Your task to perform on an android device: Open internet settings Image 0: 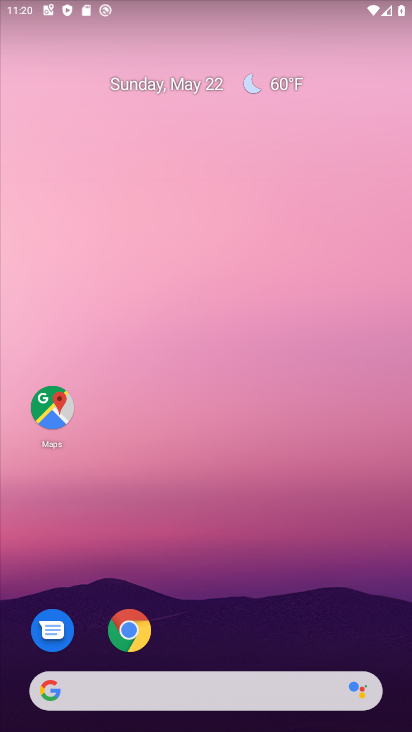
Step 0: drag from (260, 626) to (178, 217)
Your task to perform on an android device: Open internet settings Image 1: 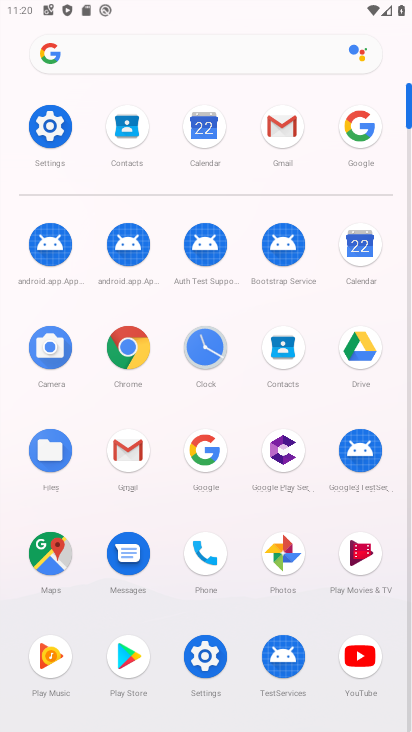
Step 1: click (205, 658)
Your task to perform on an android device: Open internet settings Image 2: 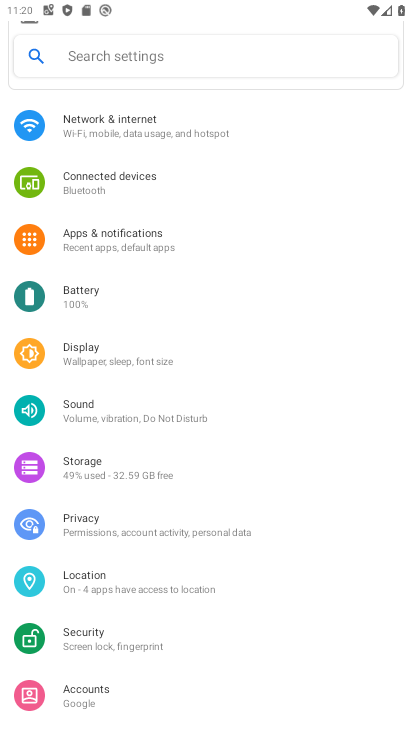
Step 2: click (107, 125)
Your task to perform on an android device: Open internet settings Image 3: 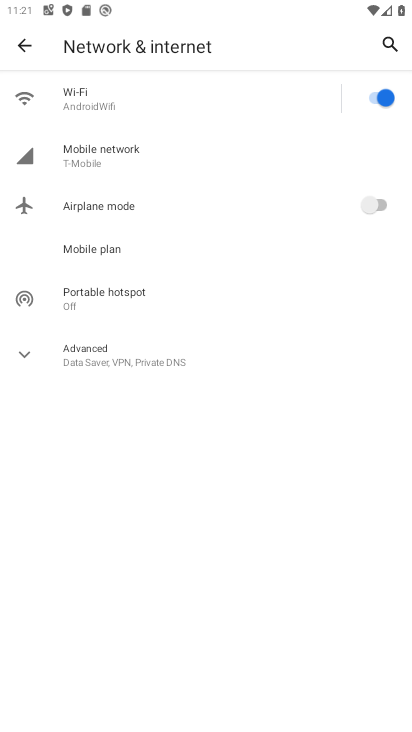
Step 3: click (90, 110)
Your task to perform on an android device: Open internet settings Image 4: 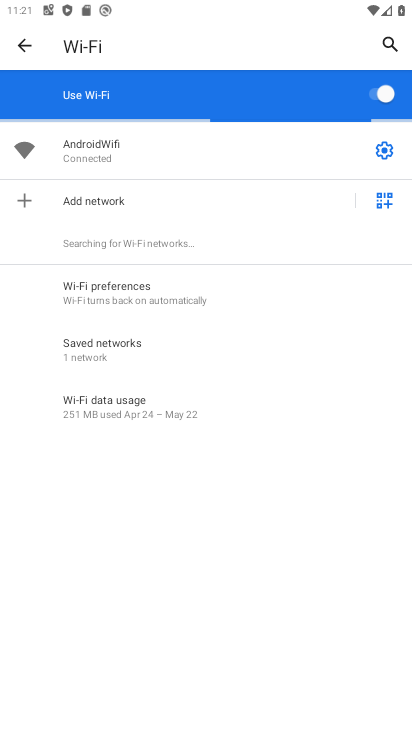
Step 4: task complete